Your task to perform on an android device: check google app version Image 0: 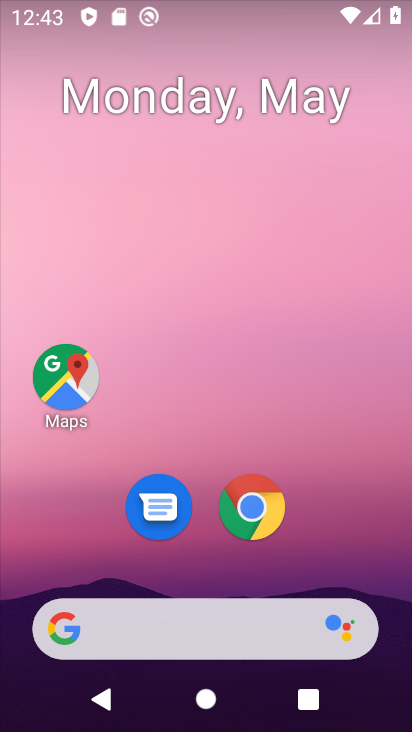
Step 0: drag from (232, 722) to (224, 44)
Your task to perform on an android device: check google app version Image 1: 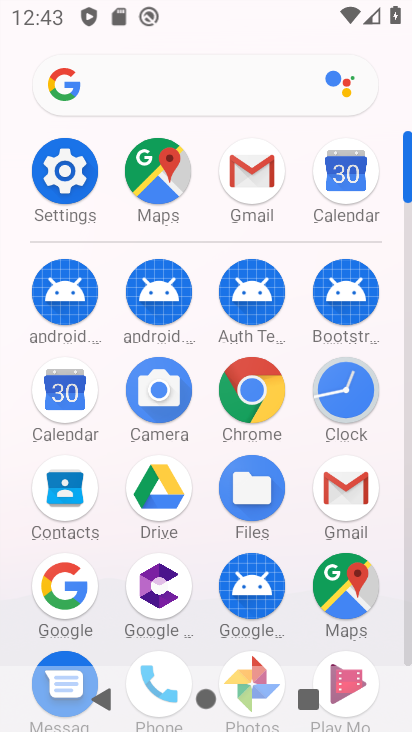
Step 1: click (70, 589)
Your task to perform on an android device: check google app version Image 2: 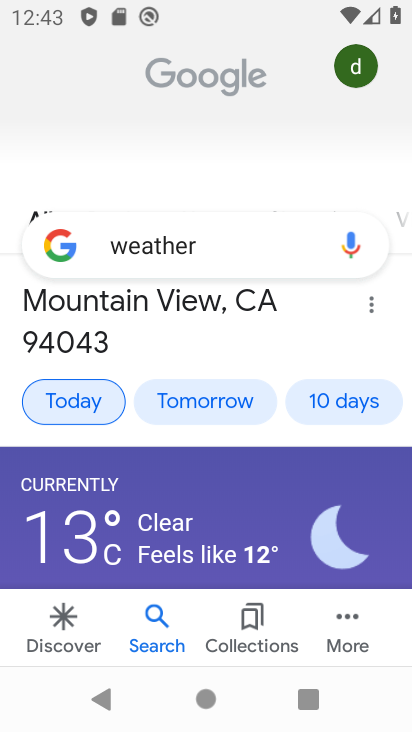
Step 2: click (354, 616)
Your task to perform on an android device: check google app version Image 3: 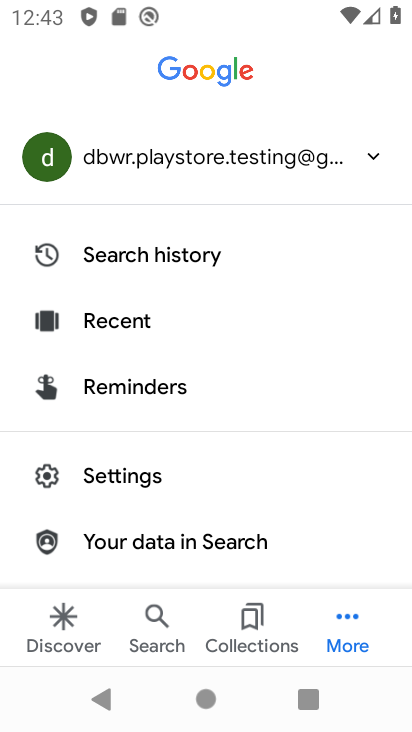
Step 3: click (103, 475)
Your task to perform on an android device: check google app version Image 4: 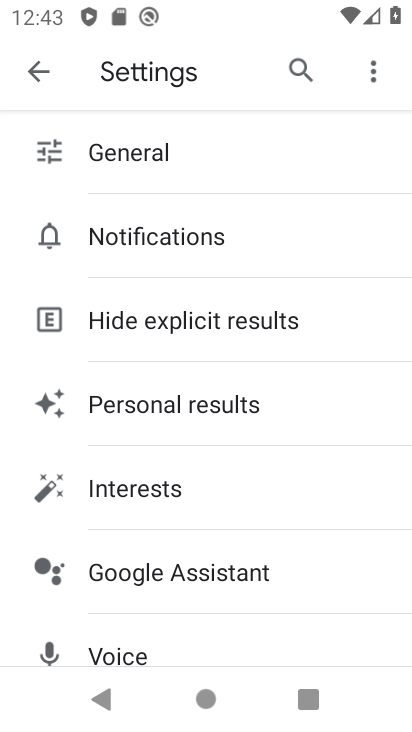
Step 4: drag from (130, 615) to (130, 194)
Your task to perform on an android device: check google app version Image 5: 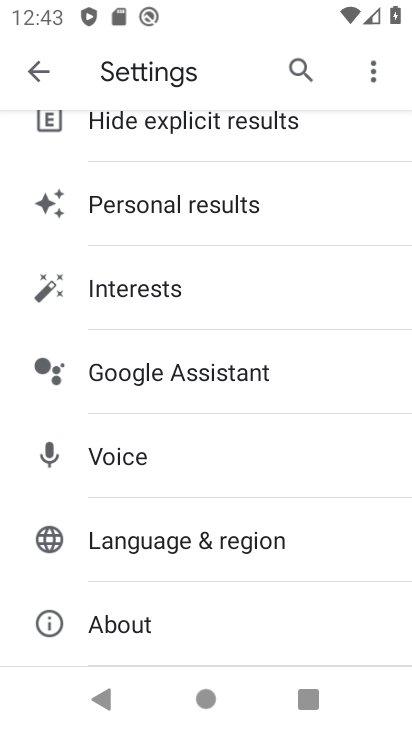
Step 5: click (127, 620)
Your task to perform on an android device: check google app version Image 6: 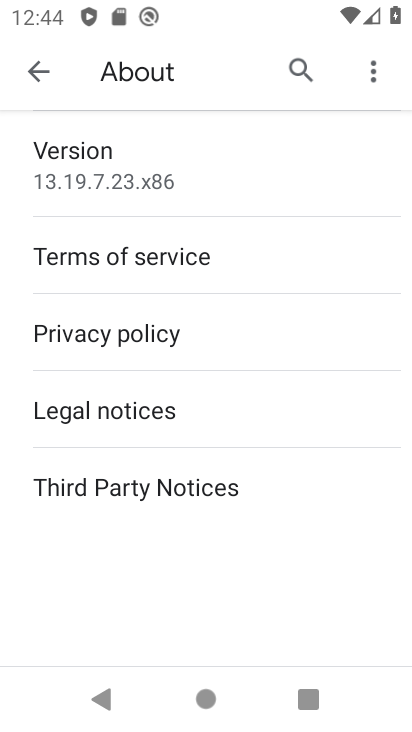
Step 6: task complete